Your task to perform on an android device: turn smart compose on in the gmail app Image 0: 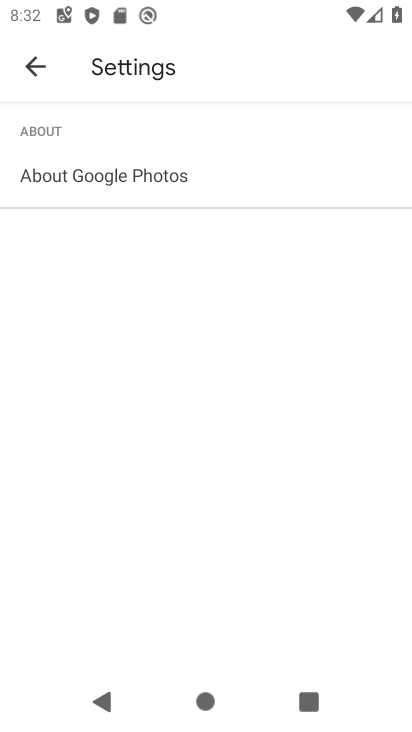
Step 0: click (42, 68)
Your task to perform on an android device: turn smart compose on in the gmail app Image 1: 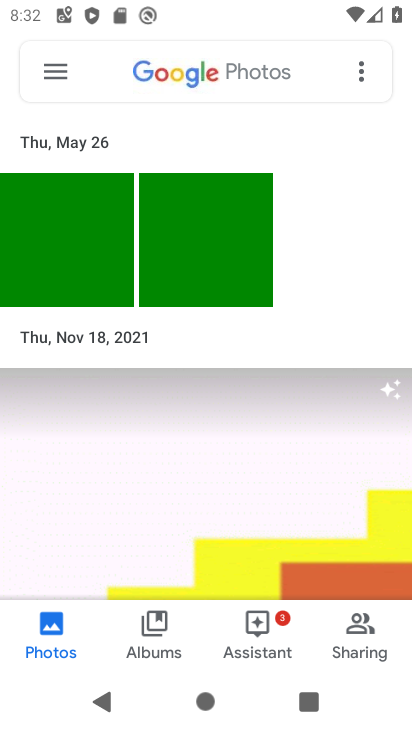
Step 1: press home button
Your task to perform on an android device: turn smart compose on in the gmail app Image 2: 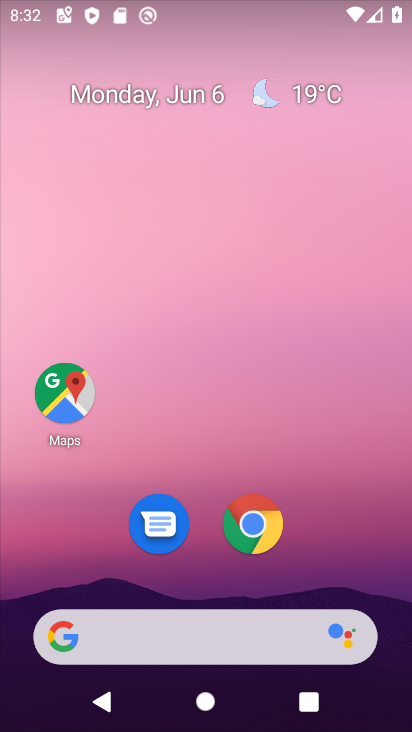
Step 2: drag from (289, 549) to (290, 74)
Your task to perform on an android device: turn smart compose on in the gmail app Image 3: 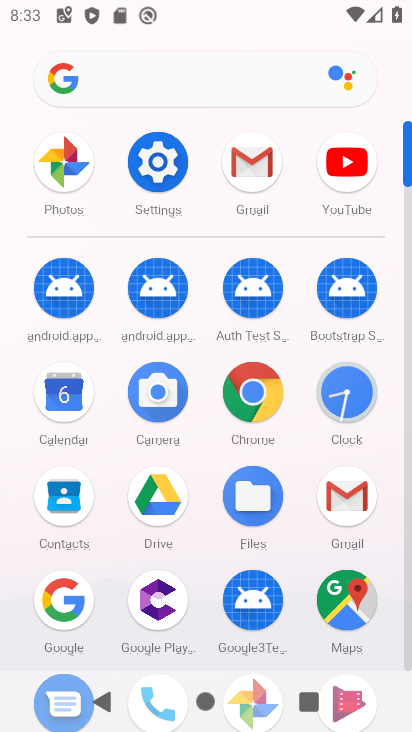
Step 3: click (244, 171)
Your task to perform on an android device: turn smart compose on in the gmail app Image 4: 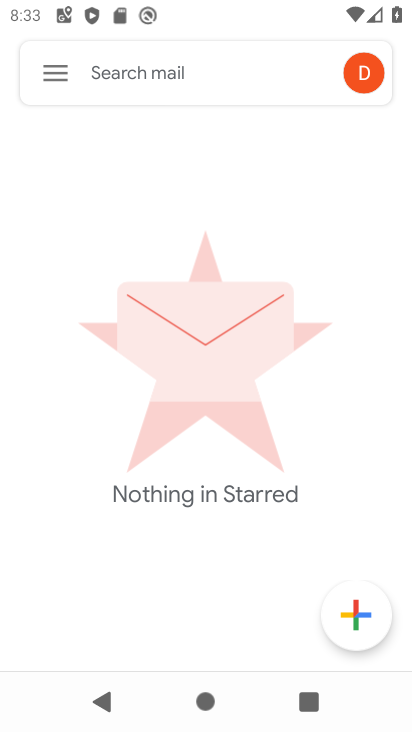
Step 4: click (54, 62)
Your task to perform on an android device: turn smart compose on in the gmail app Image 5: 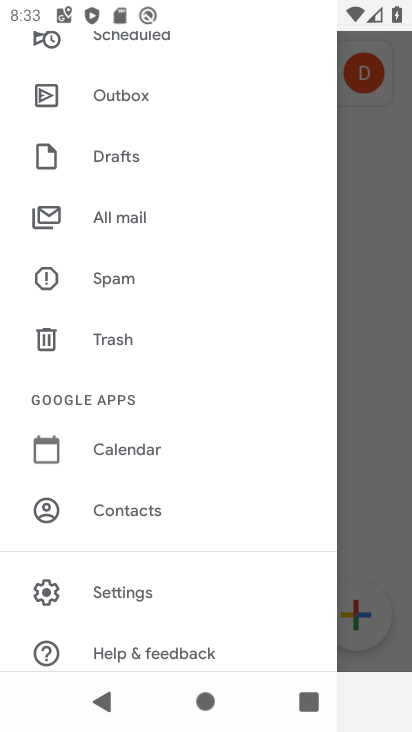
Step 5: click (108, 586)
Your task to perform on an android device: turn smart compose on in the gmail app Image 6: 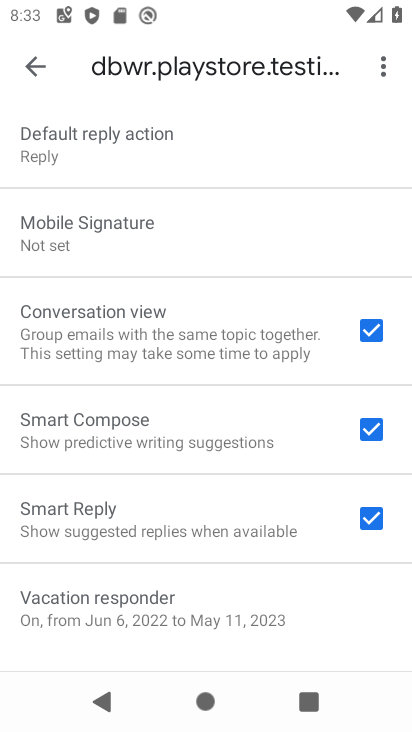
Step 6: task complete